Your task to perform on an android device: Go to Android settings Image 0: 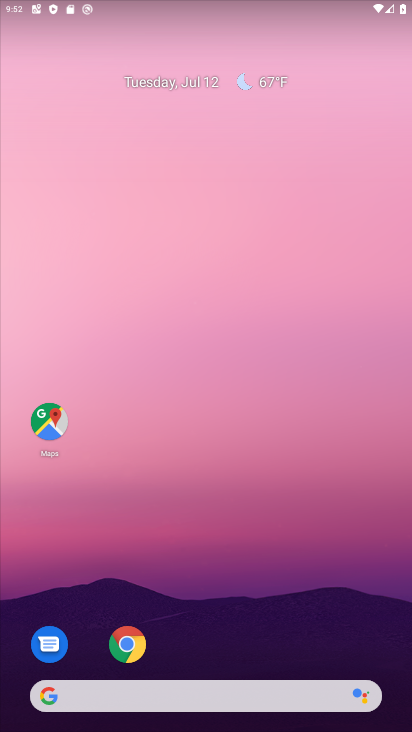
Step 0: drag from (188, 498) to (205, 146)
Your task to perform on an android device: Go to Android settings Image 1: 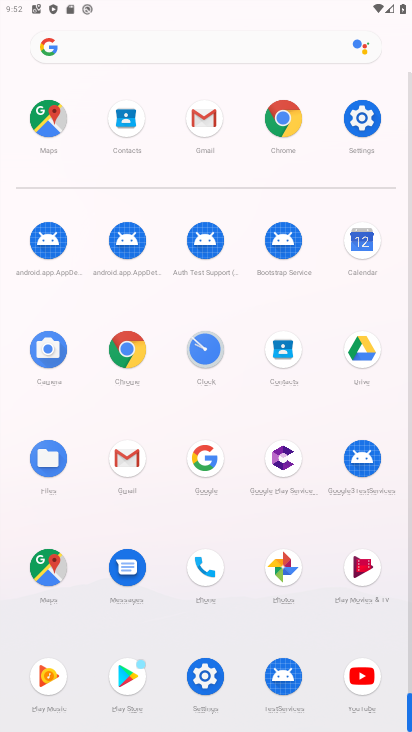
Step 1: click (199, 672)
Your task to perform on an android device: Go to Android settings Image 2: 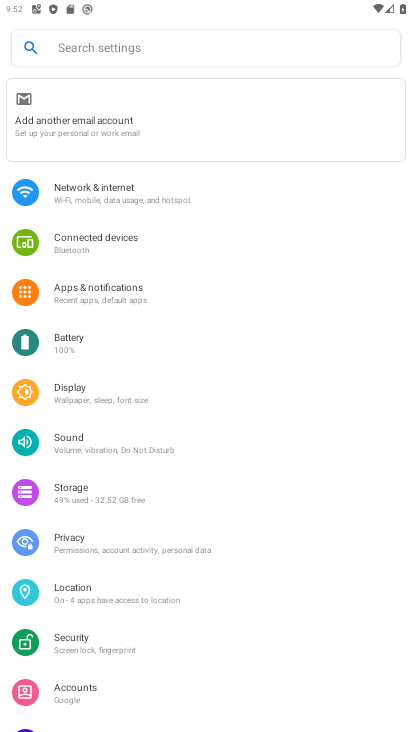
Step 2: drag from (143, 584) to (250, 138)
Your task to perform on an android device: Go to Android settings Image 3: 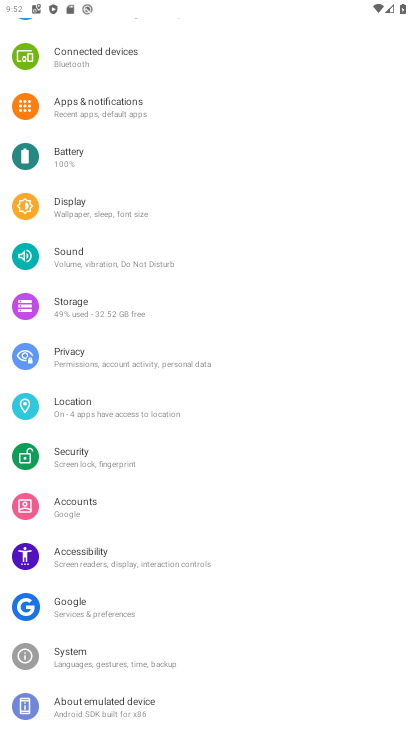
Step 3: click (124, 698)
Your task to perform on an android device: Go to Android settings Image 4: 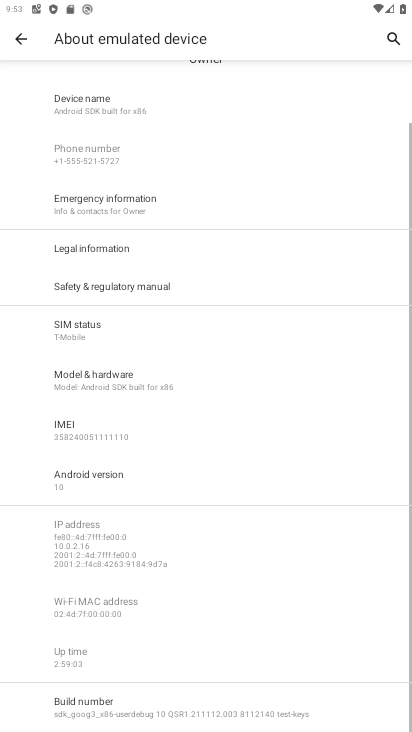
Step 4: drag from (138, 632) to (264, 119)
Your task to perform on an android device: Go to Android settings Image 5: 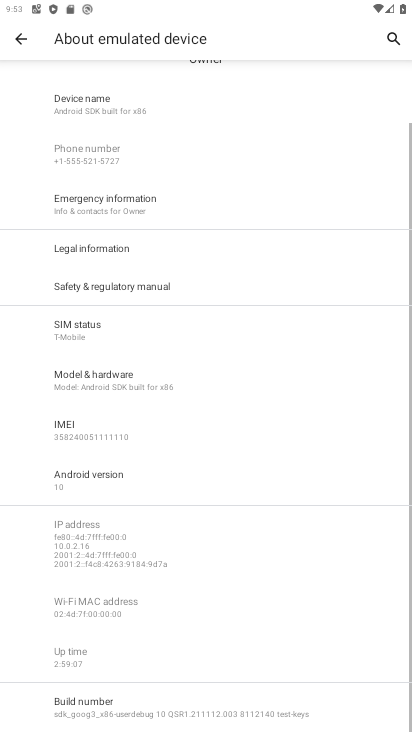
Step 5: click (126, 482)
Your task to perform on an android device: Go to Android settings Image 6: 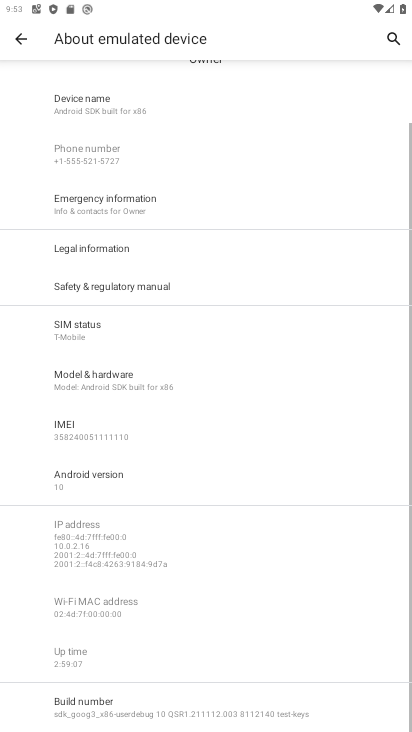
Step 6: click (126, 482)
Your task to perform on an android device: Go to Android settings Image 7: 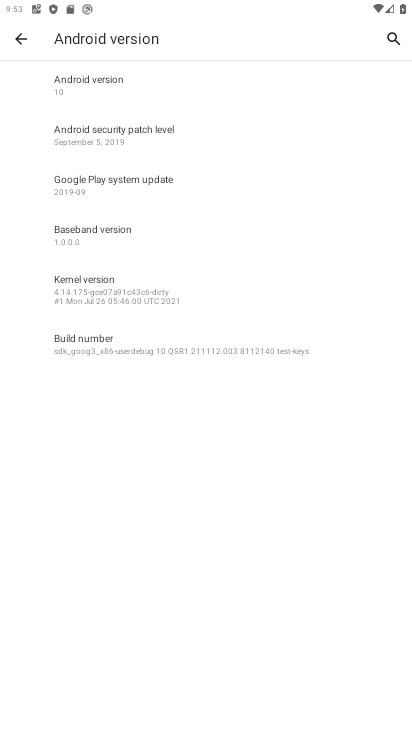
Step 7: task complete